Your task to perform on an android device: What is the recent news? Image 0: 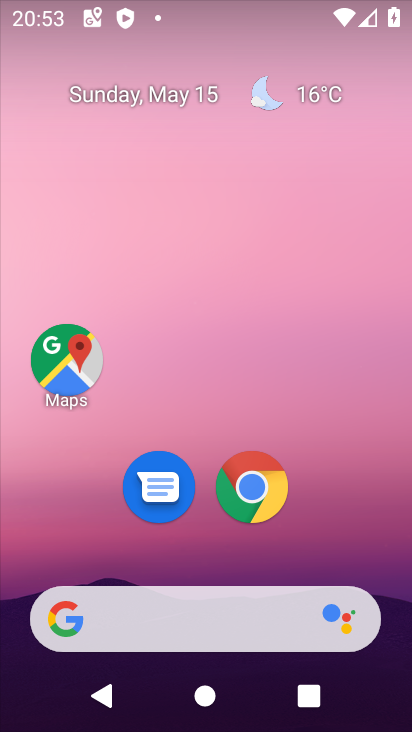
Step 0: drag from (397, 665) to (355, 309)
Your task to perform on an android device: What is the recent news? Image 1: 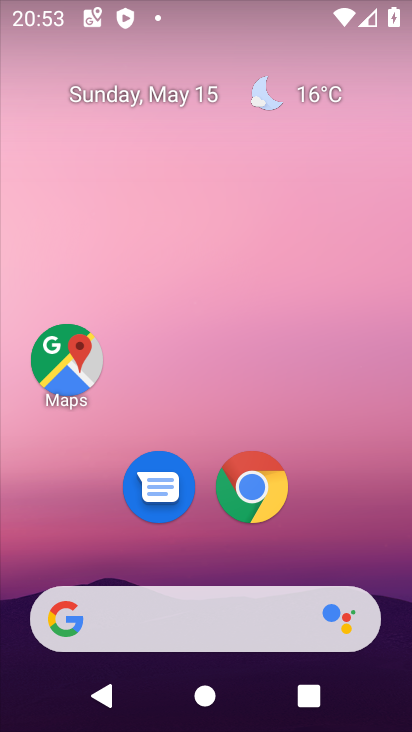
Step 1: drag from (392, 612) to (334, 222)
Your task to perform on an android device: What is the recent news? Image 2: 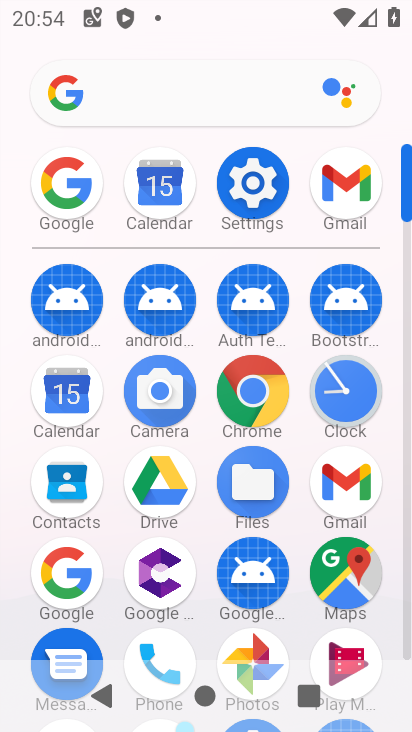
Step 2: click (64, 175)
Your task to perform on an android device: What is the recent news? Image 3: 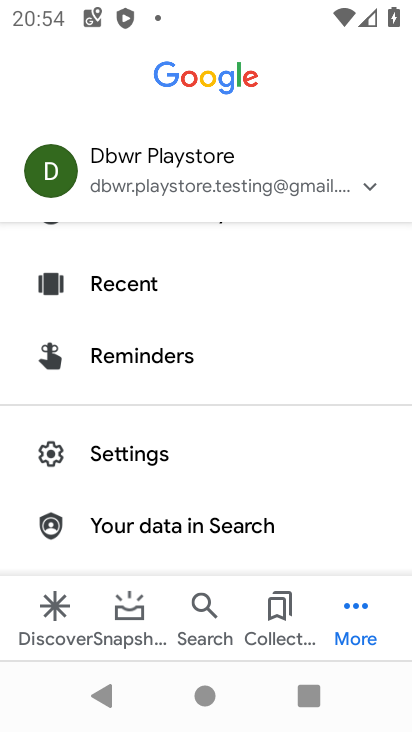
Step 3: task complete